Your task to perform on an android device: Go to location settings Image 0: 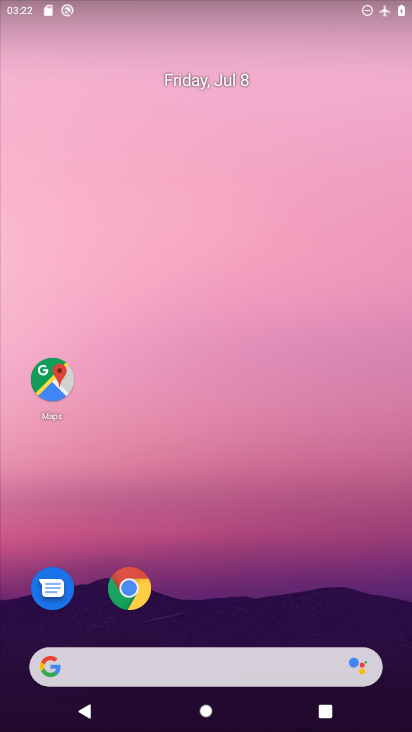
Step 0: drag from (178, 583) to (192, 12)
Your task to perform on an android device: Go to location settings Image 1: 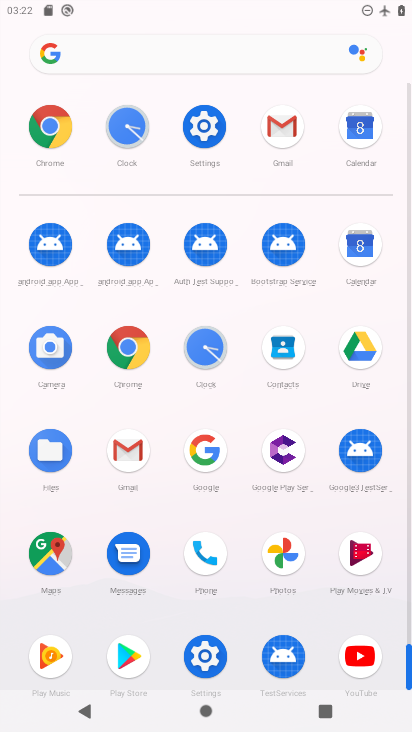
Step 1: click (205, 132)
Your task to perform on an android device: Go to location settings Image 2: 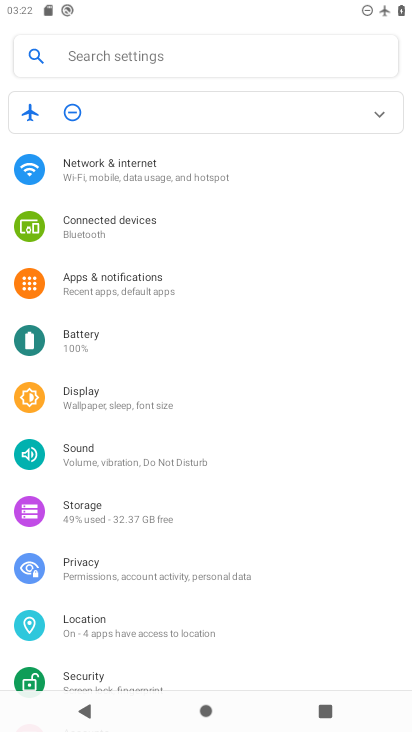
Step 2: click (92, 622)
Your task to perform on an android device: Go to location settings Image 3: 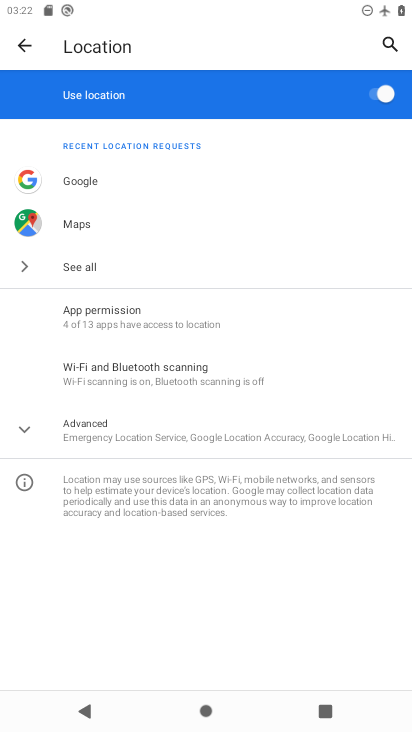
Step 3: click (70, 419)
Your task to perform on an android device: Go to location settings Image 4: 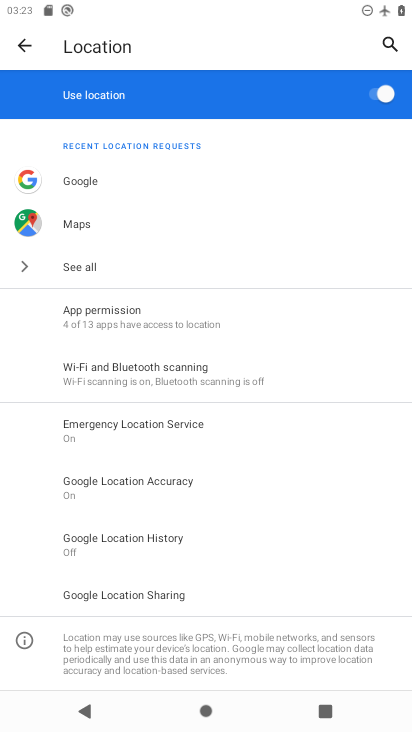
Step 4: click (116, 541)
Your task to perform on an android device: Go to location settings Image 5: 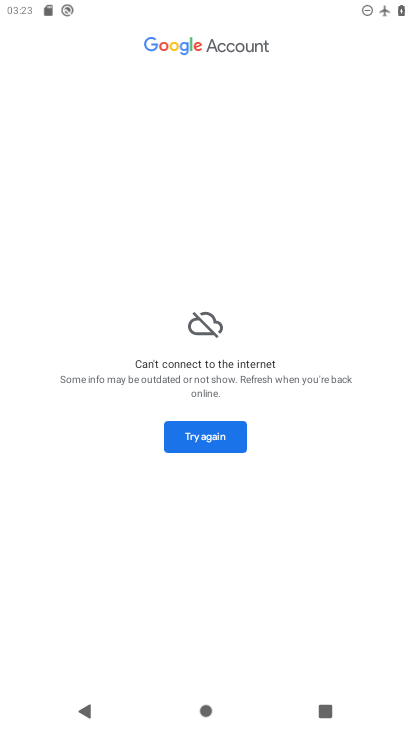
Step 5: task complete